Your task to perform on an android device: read, delete, or share a saved page in the chrome app Image 0: 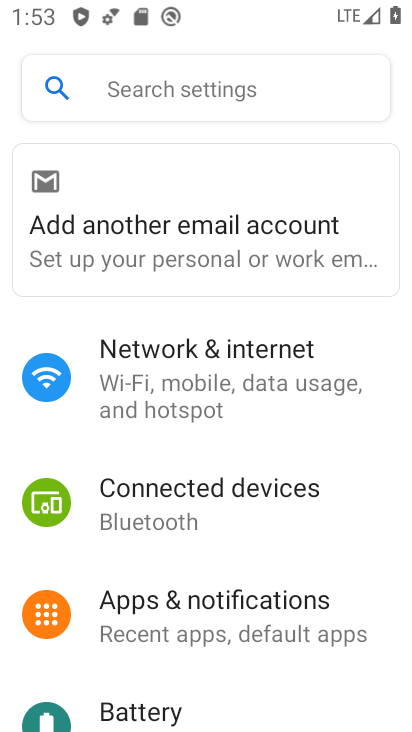
Step 0: press home button
Your task to perform on an android device: read, delete, or share a saved page in the chrome app Image 1: 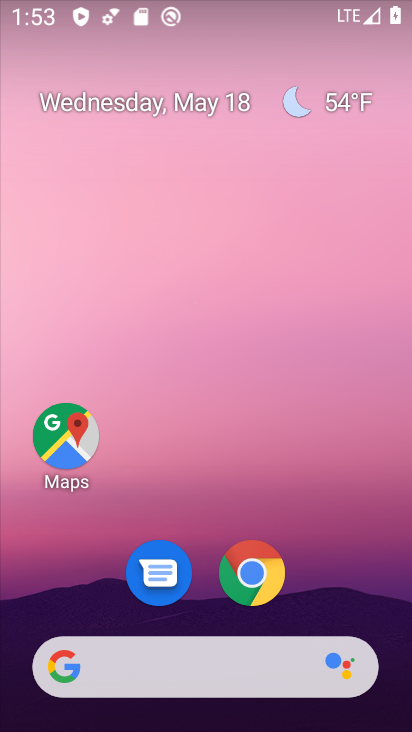
Step 1: click (254, 580)
Your task to perform on an android device: read, delete, or share a saved page in the chrome app Image 2: 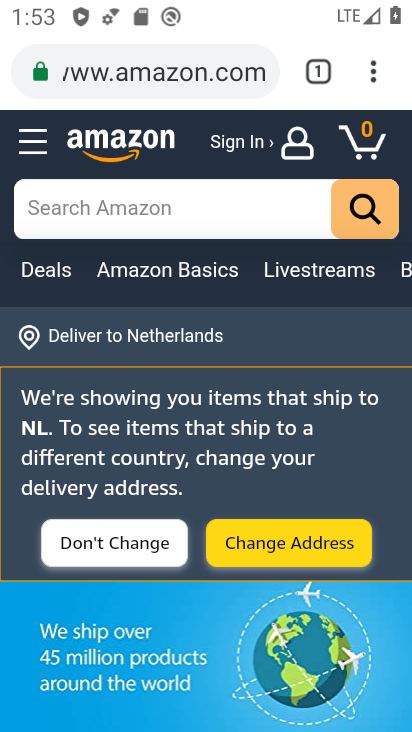
Step 2: task complete